Your task to perform on an android device: delete a single message in the gmail app Image 0: 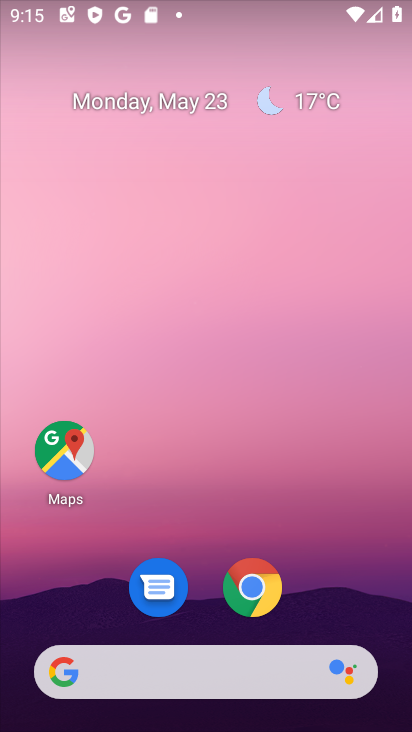
Step 0: drag from (247, 459) to (290, 10)
Your task to perform on an android device: delete a single message in the gmail app Image 1: 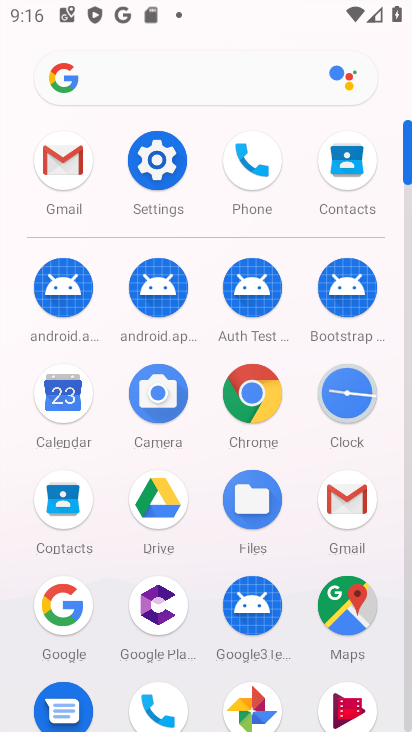
Step 1: click (60, 145)
Your task to perform on an android device: delete a single message in the gmail app Image 2: 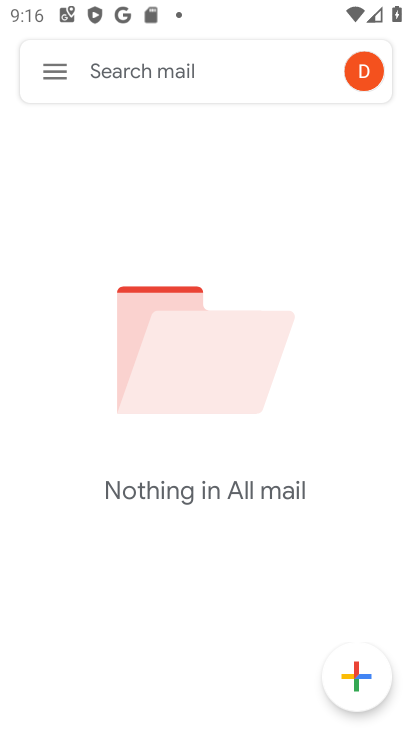
Step 2: task complete